Your task to perform on an android device: change timer sound Image 0: 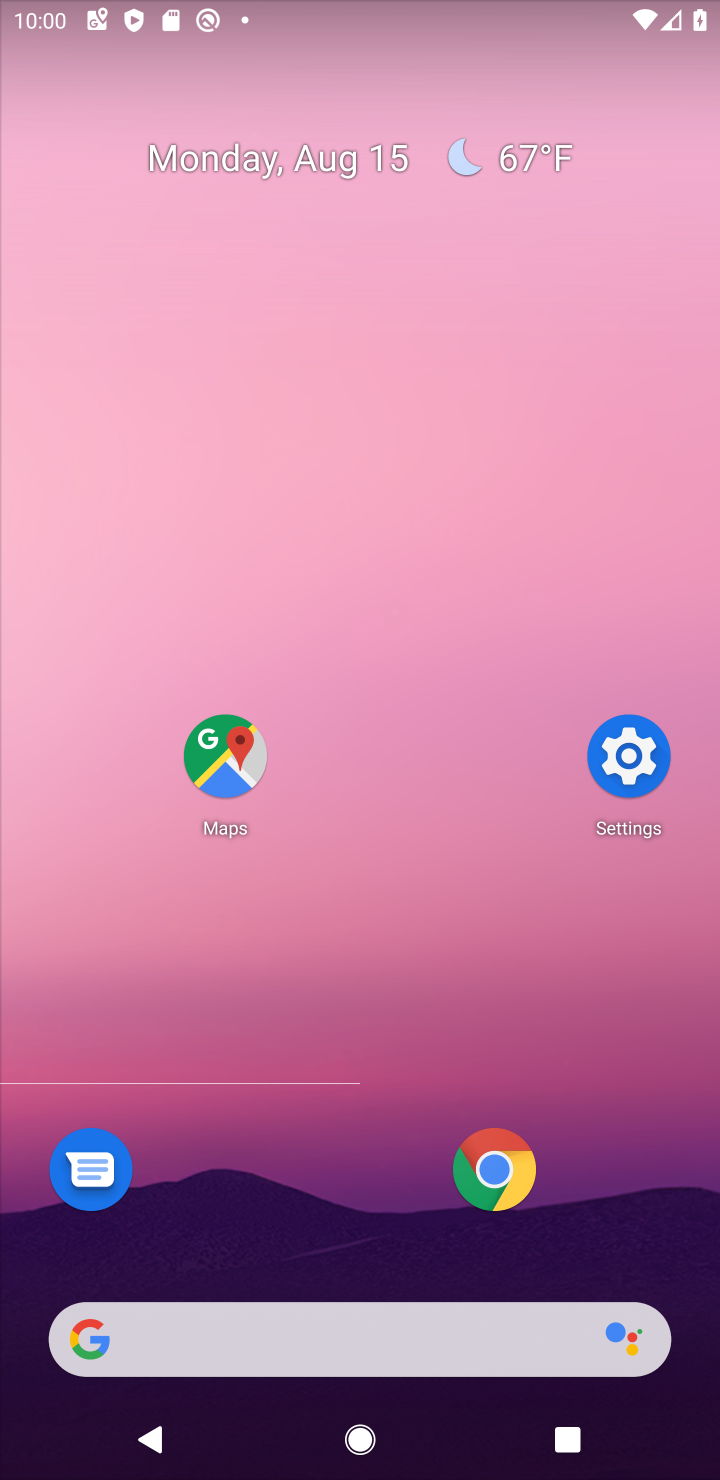
Step 0: press home button
Your task to perform on an android device: change timer sound Image 1: 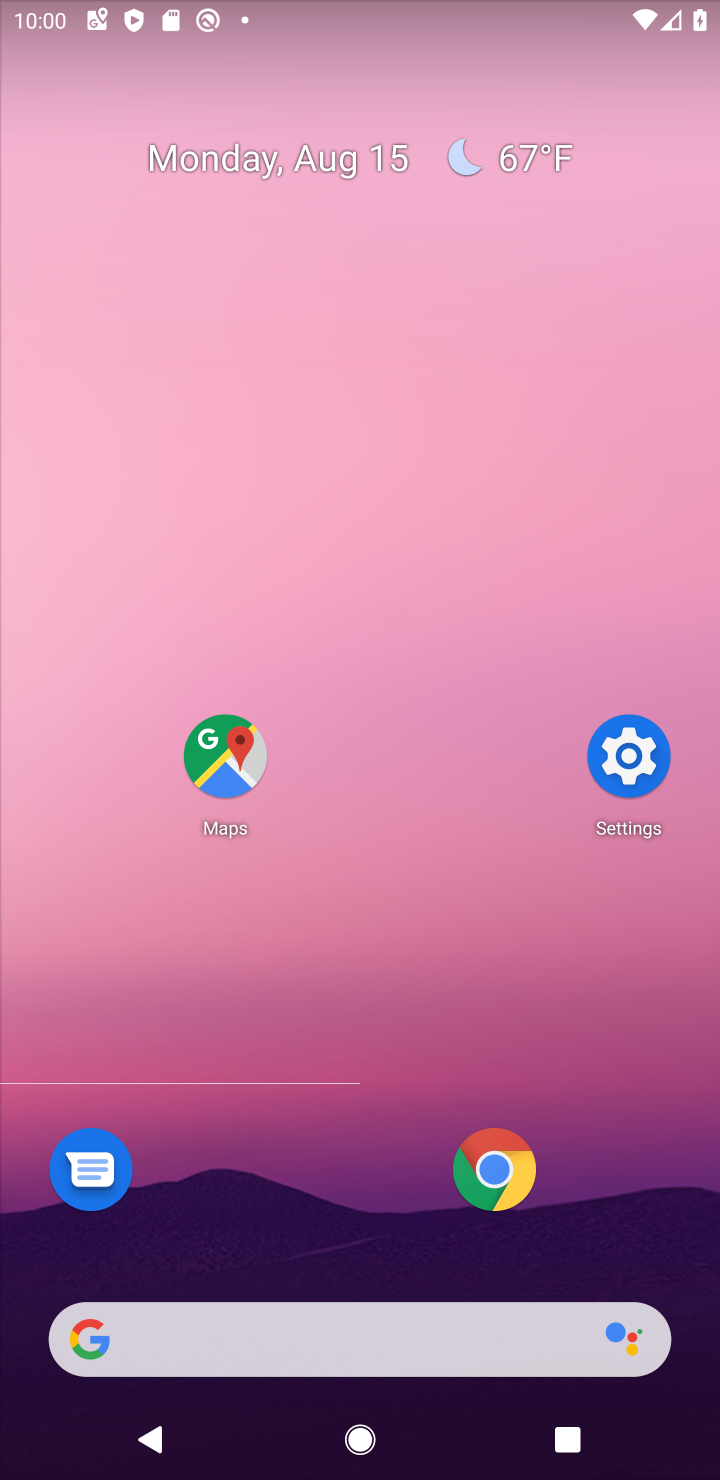
Step 1: drag from (348, 1335) to (480, 250)
Your task to perform on an android device: change timer sound Image 2: 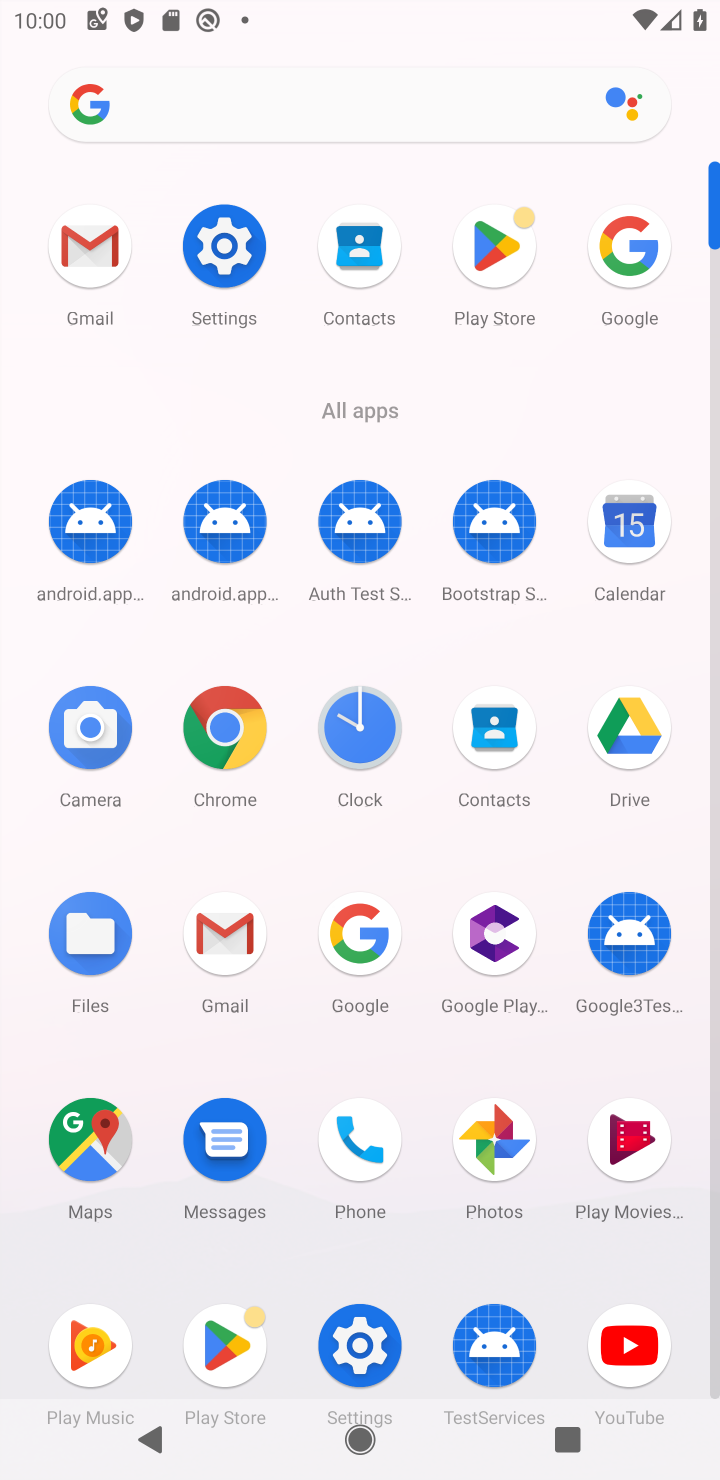
Step 2: click (349, 738)
Your task to perform on an android device: change timer sound Image 3: 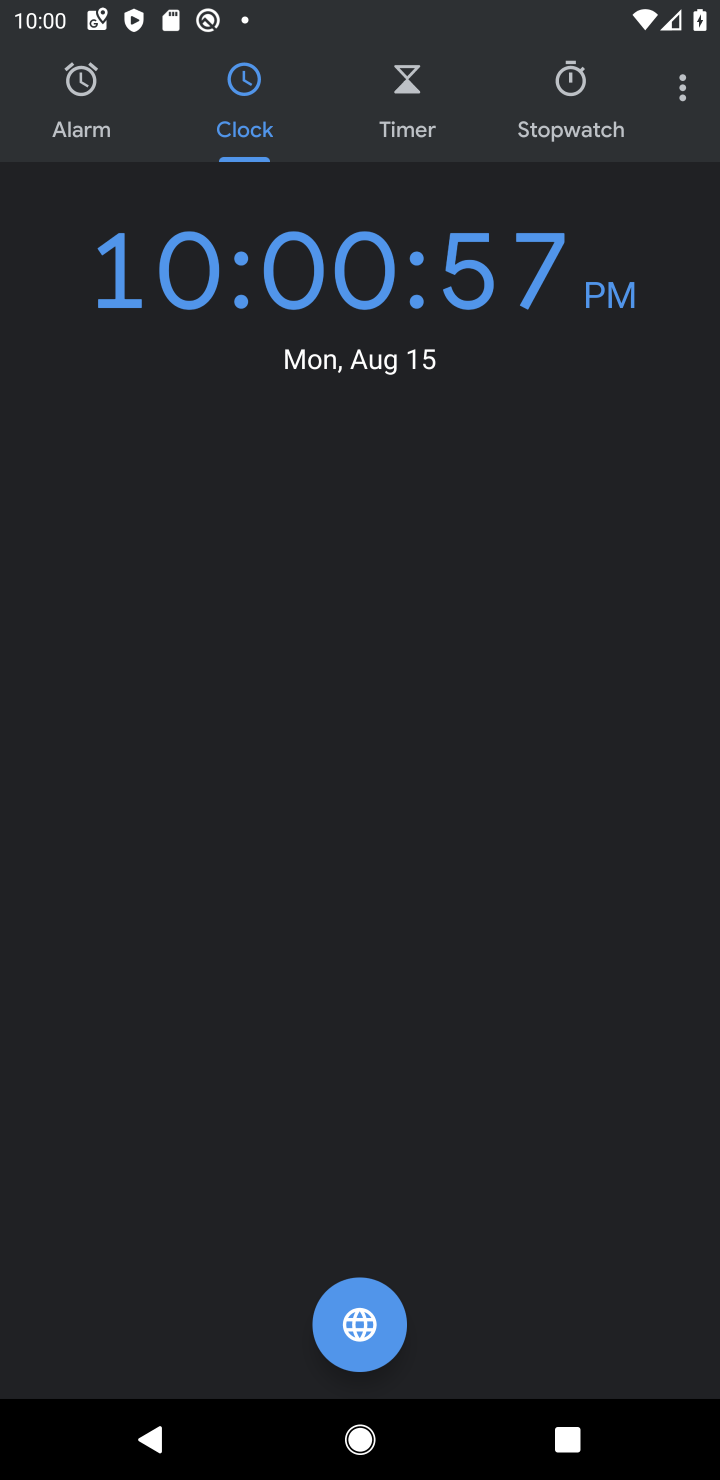
Step 3: click (424, 101)
Your task to perform on an android device: change timer sound Image 4: 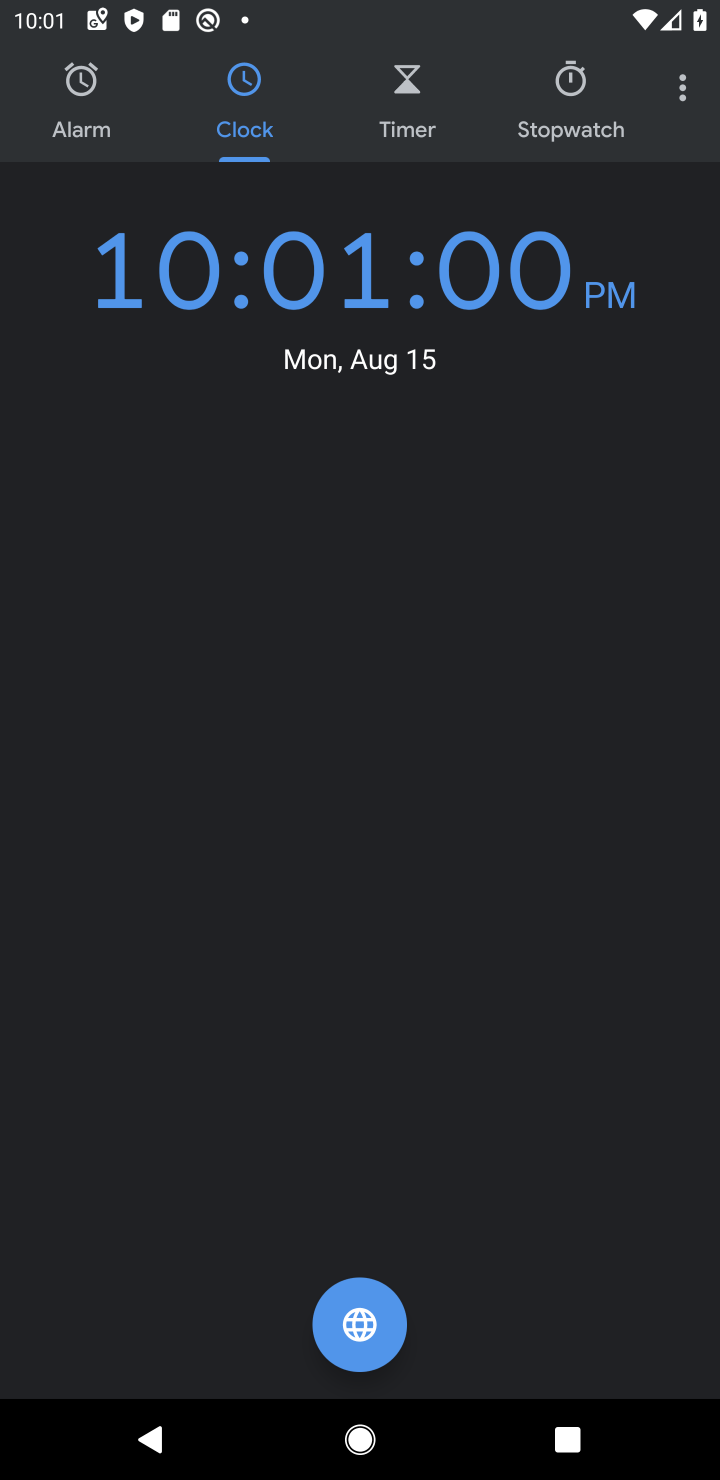
Step 4: click (396, 121)
Your task to perform on an android device: change timer sound Image 5: 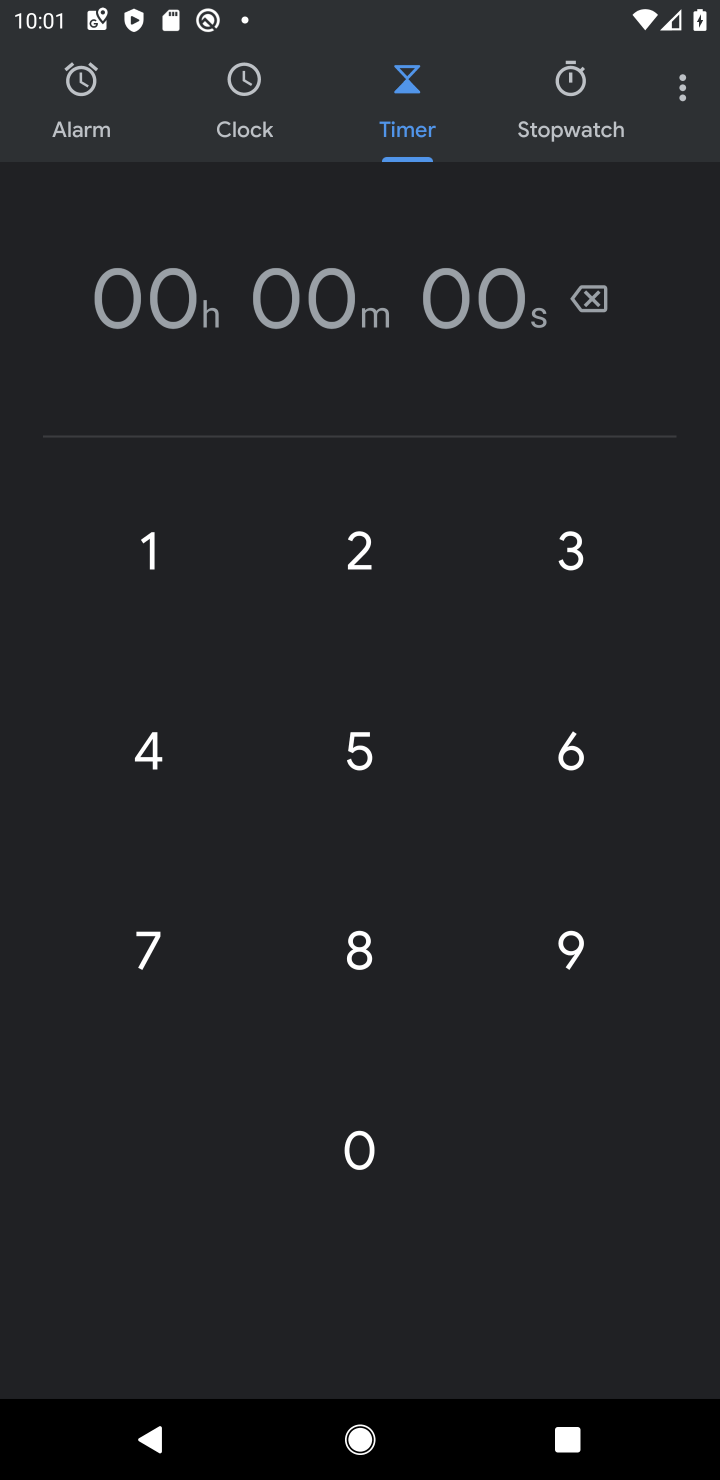
Step 5: click (137, 763)
Your task to perform on an android device: change timer sound Image 6: 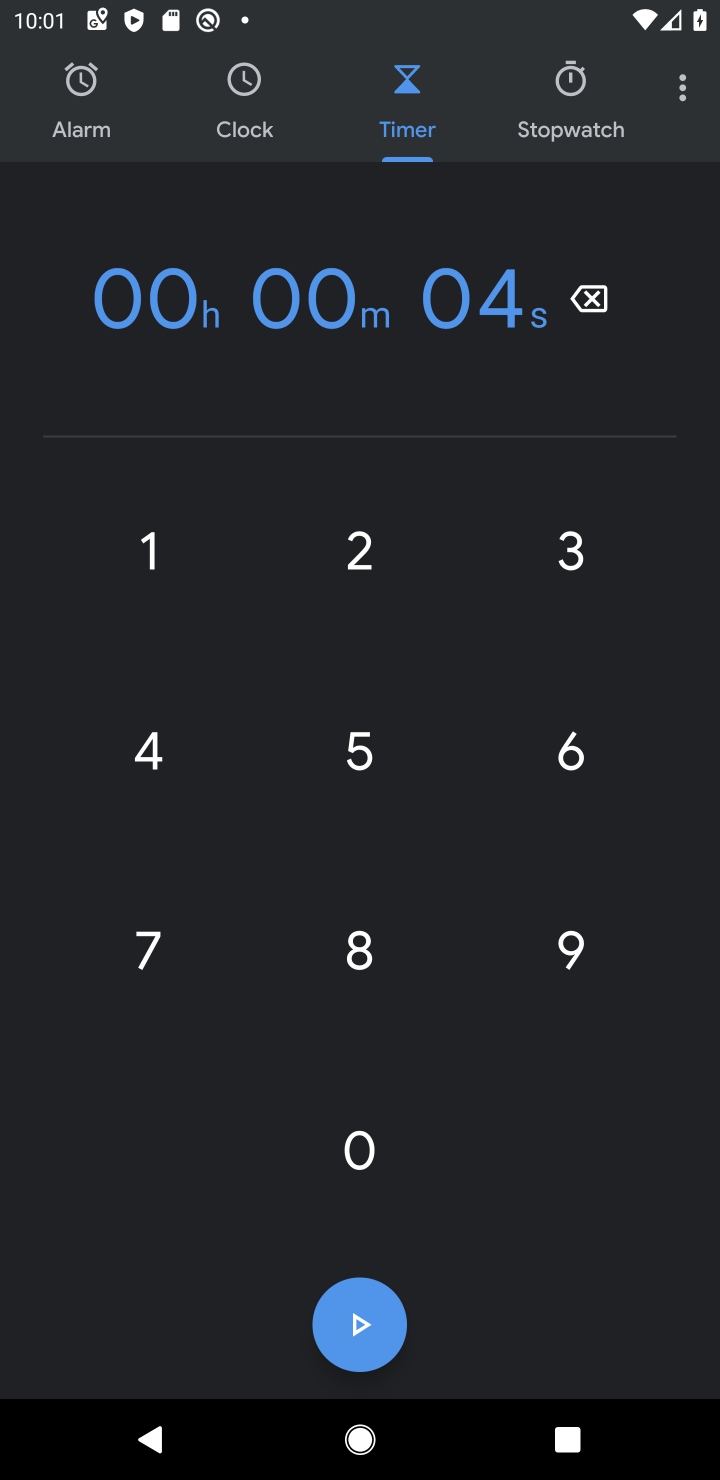
Step 6: click (564, 734)
Your task to perform on an android device: change timer sound Image 7: 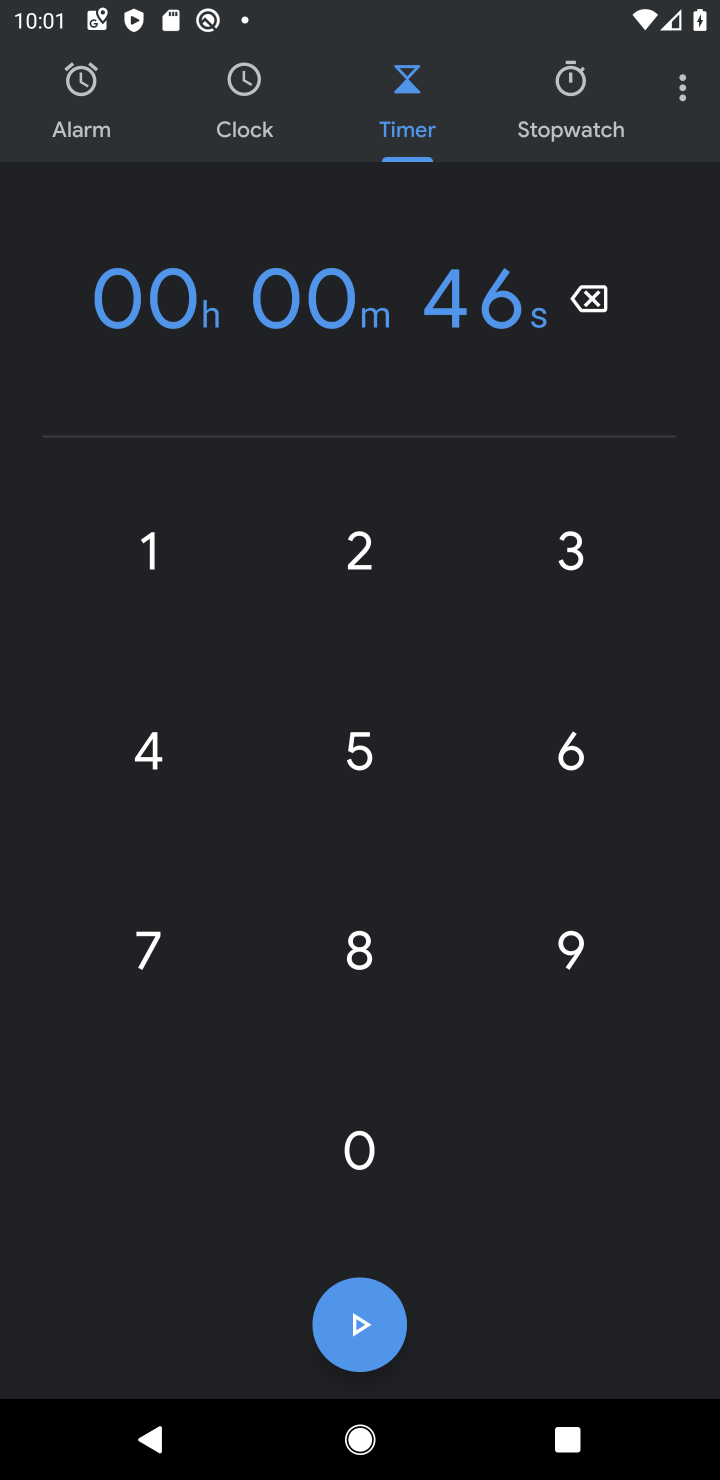
Step 7: click (347, 1333)
Your task to perform on an android device: change timer sound Image 8: 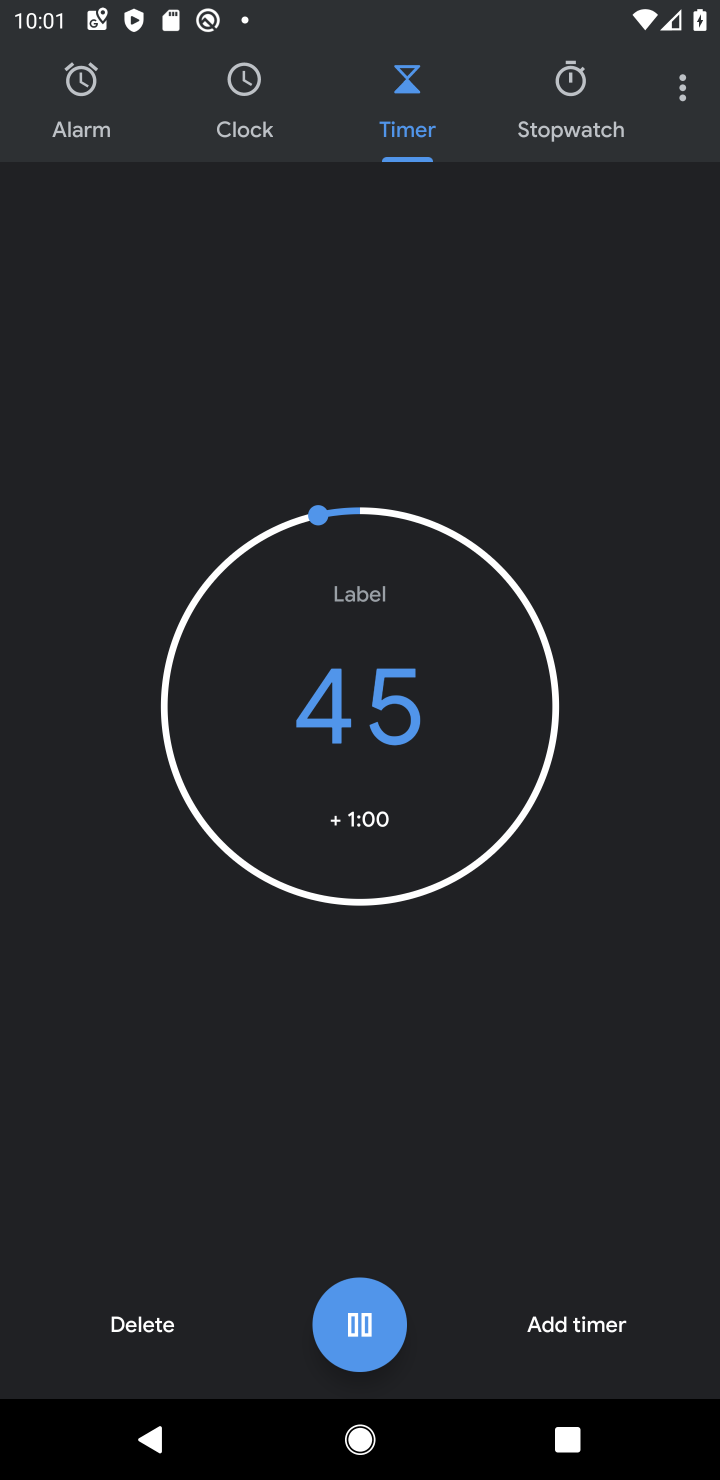
Step 8: click (345, 1309)
Your task to perform on an android device: change timer sound Image 9: 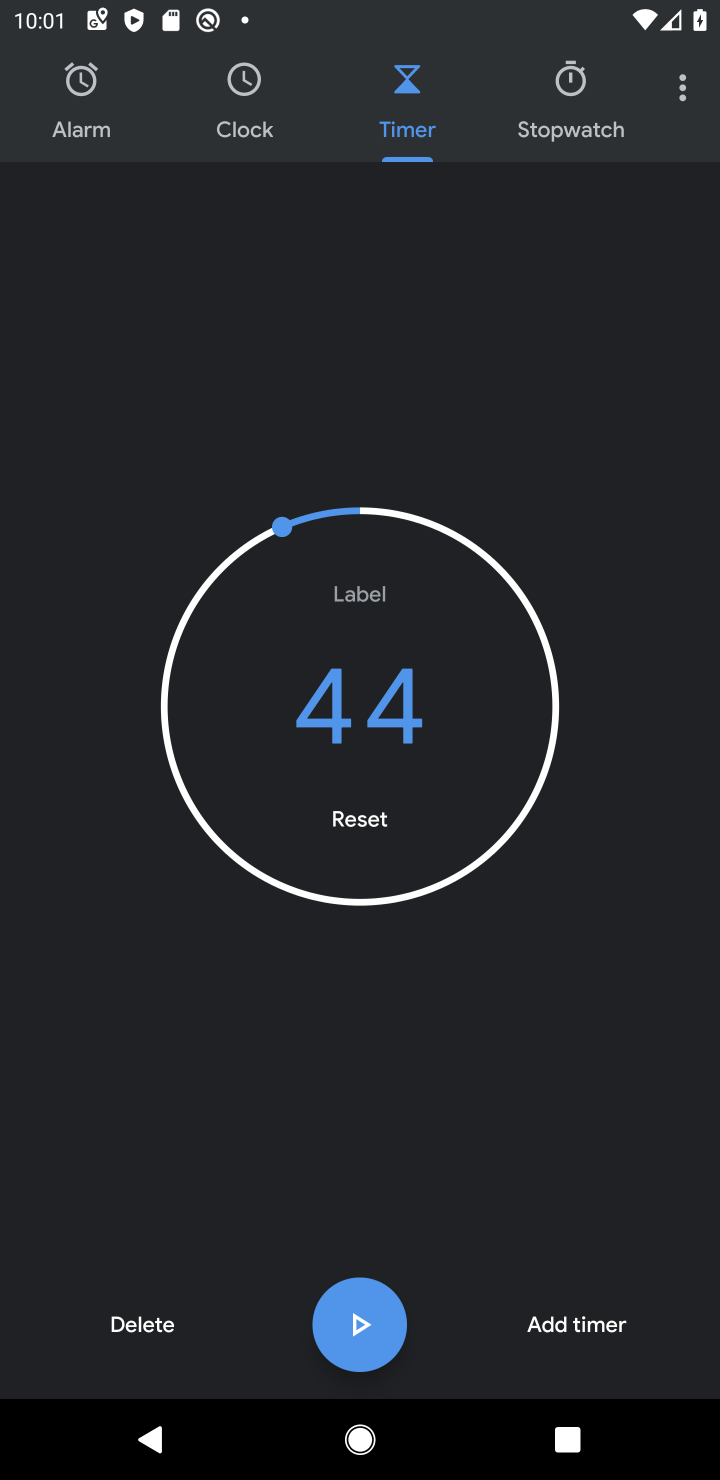
Step 9: task complete